Your task to perform on an android device: Open my contact list Image 0: 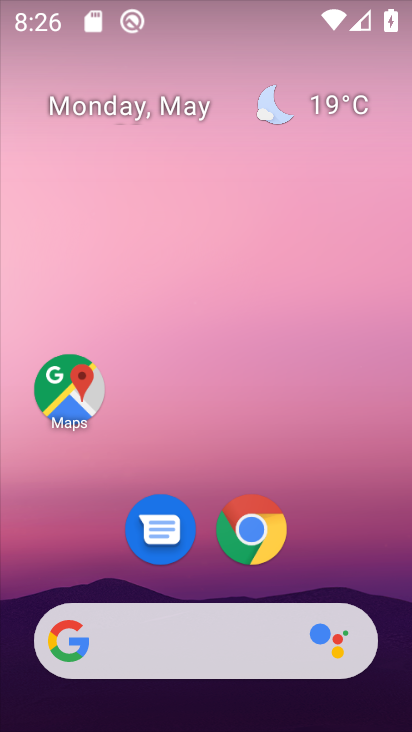
Step 0: click (297, 3)
Your task to perform on an android device: Open my contact list Image 1: 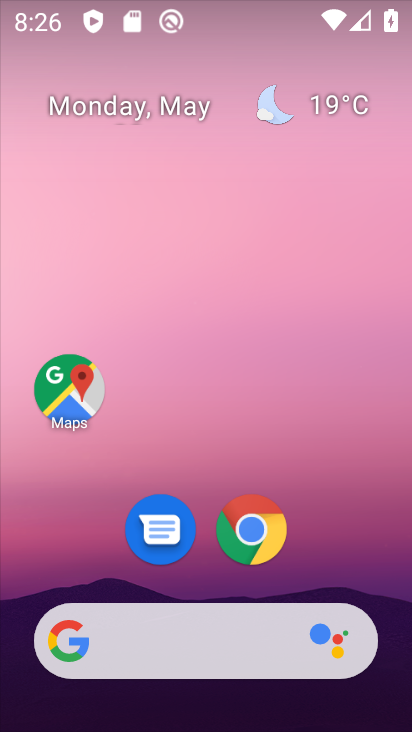
Step 1: drag from (307, 551) to (279, 51)
Your task to perform on an android device: Open my contact list Image 2: 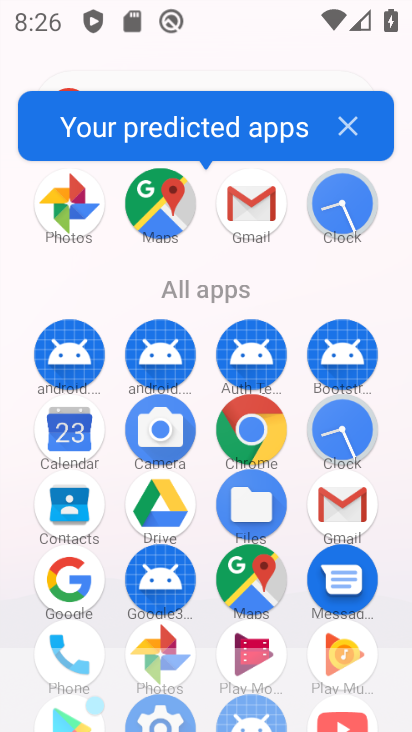
Step 2: drag from (185, 626) to (186, 285)
Your task to perform on an android device: Open my contact list Image 3: 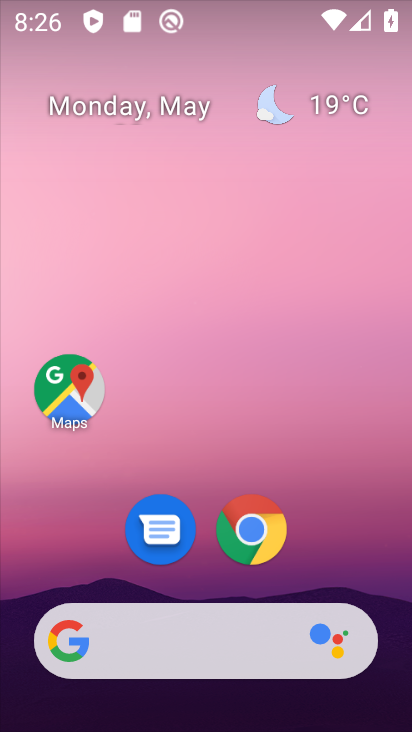
Step 3: drag from (291, 564) to (289, 0)
Your task to perform on an android device: Open my contact list Image 4: 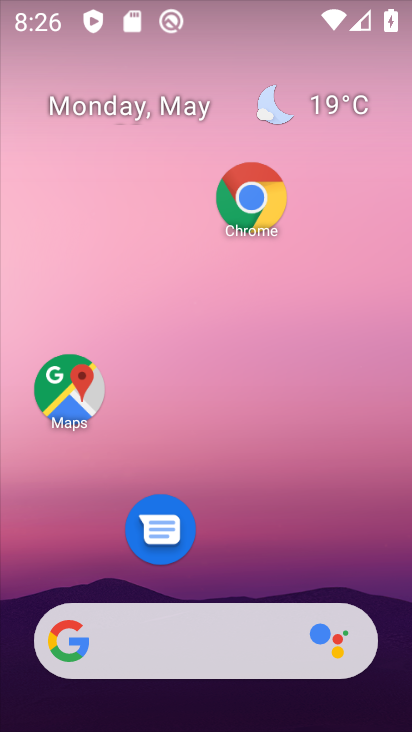
Step 4: drag from (256, 530) to (256, 33)
Your task to perform on an android device: Open my contact list Image 5: 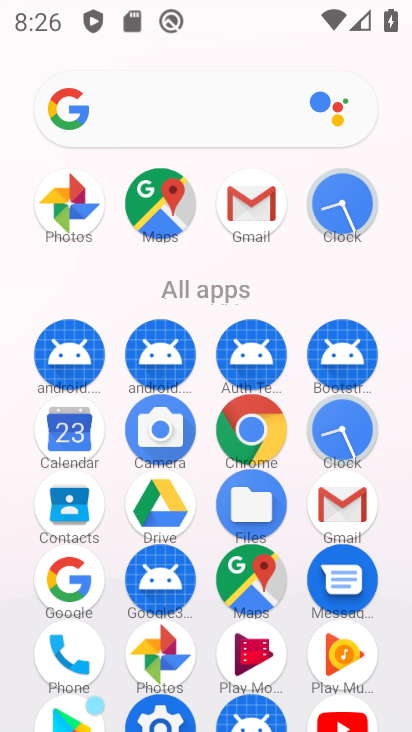
Step 5: drag from (265, 611) to (279, 563)
Your task to perform on an android device: Open my contact list Image 6: 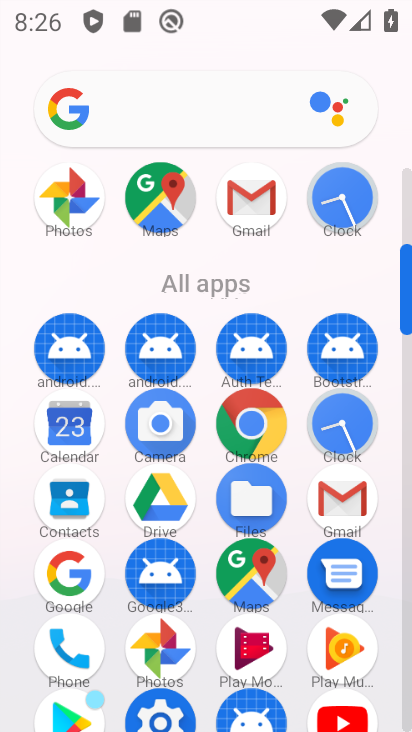
Step 6: drag from (271, 684) to (266, 591)
Your task to perform on an android device: Open my contact list Image 7: 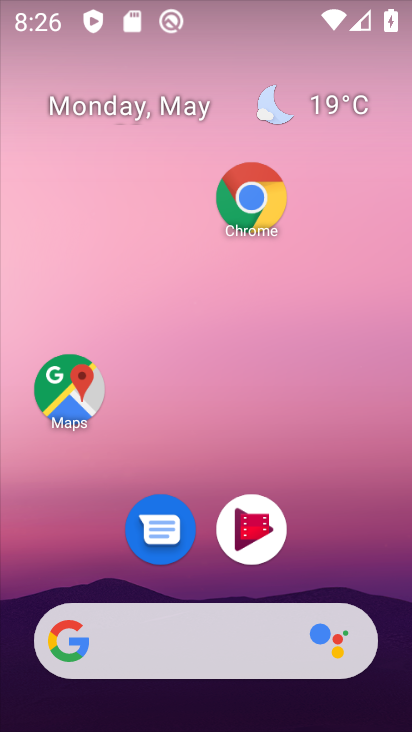
Step 7: drag from (191, 585) to (159, 238)
Your task to perform on an android device: Open my contact list Image 8: 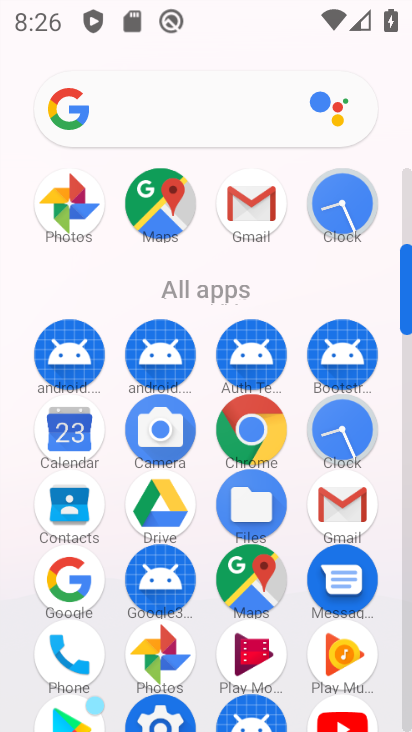
Step 8: drag from (199, 670) to (212, 327)
Your task to perform on an android device: Open my contact list Image 9: 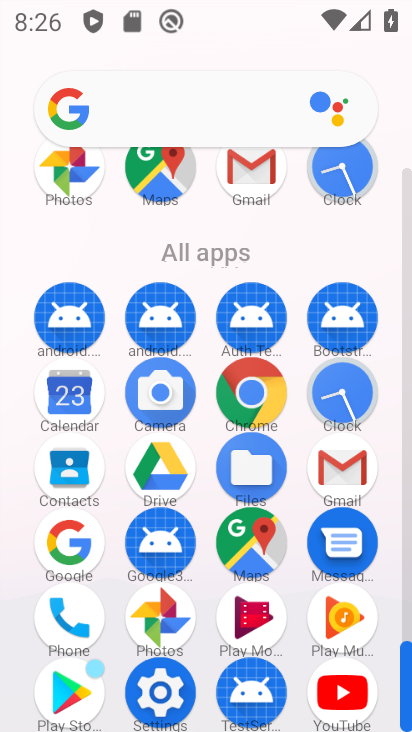
Step 9: click (77, 485)
Your task to perform on an android device: Open my contact list Image 10: 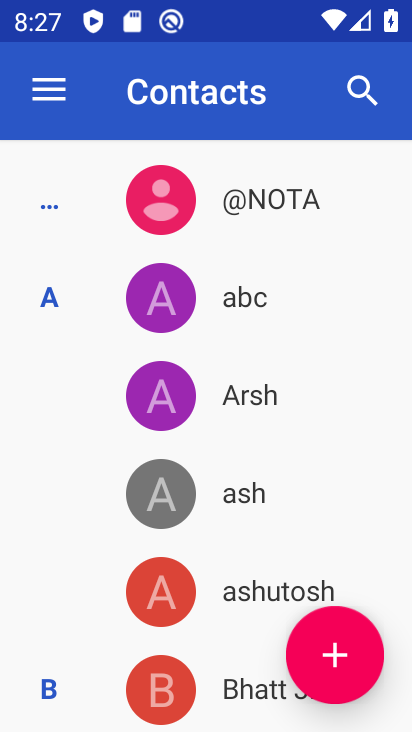
Step 10: task complete